Your task to perform on an android device: open chrome privacy settings Image 0: 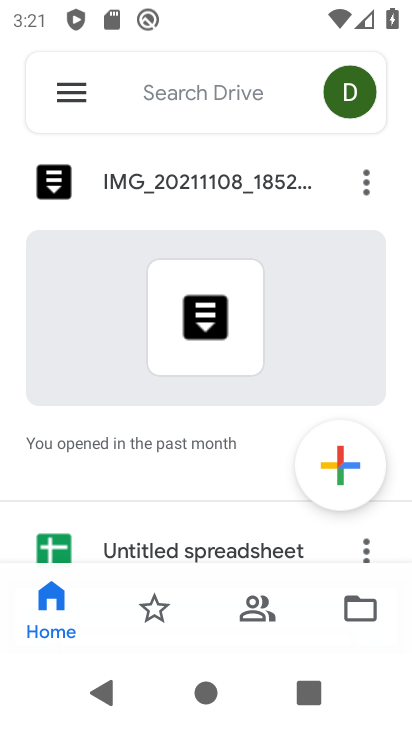
Step 0: press back button
Your task to perform on an android device: open chrome privacy settings Image 1: 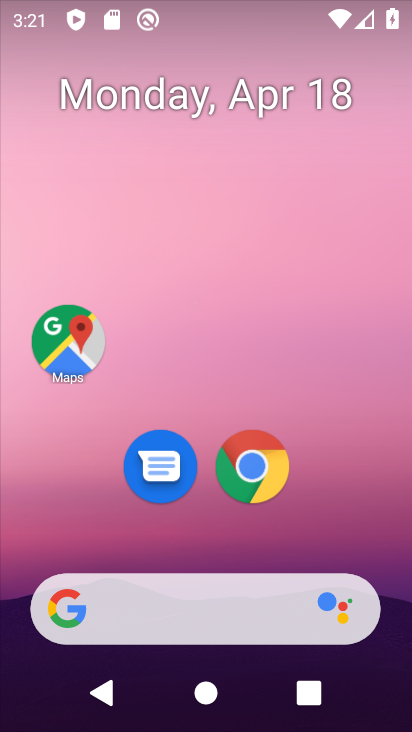
Step 1: click (261, 495)
Your task to perform on an android device: open chrome privacy settings Image 2: 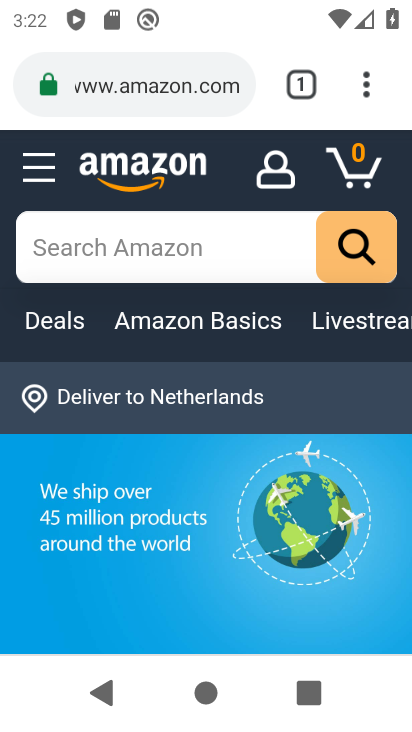
Step 2: click (372, 90)
Your task to perform on an android device: open chrome privacy settings Image 3: 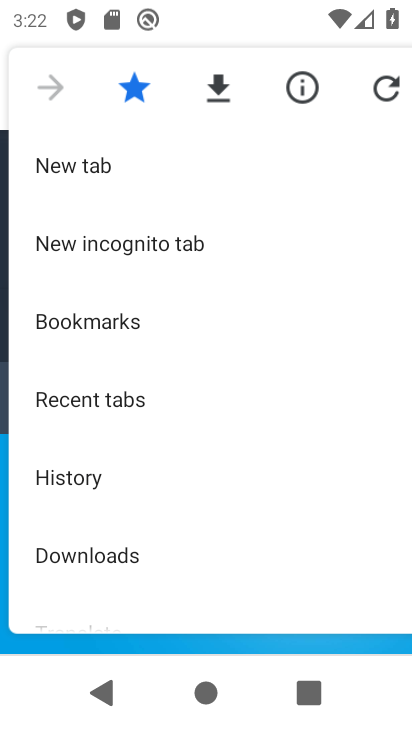
Step 3: drag from (188, 537) to (228, 299)
Your task to perform on an android device: open chrome privacy settings Image 4: 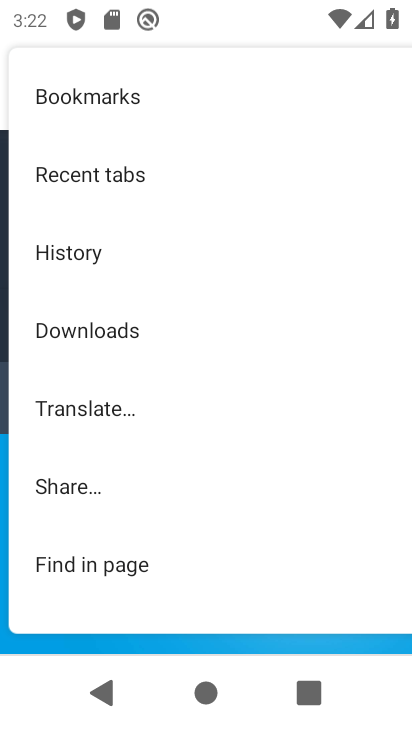
Step 4: drag from (180, 547) to (207, 358)
Your task to perform on an android device: open chrome privacy settings Image 5: 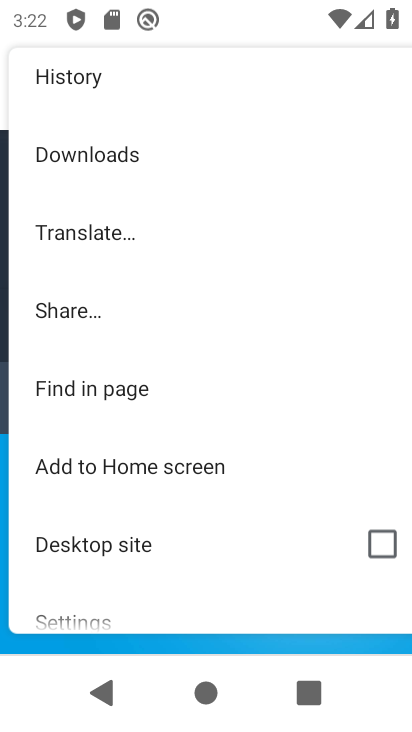
Step 5: click (144, 601)
Your task to perform on an android device: open chrome privacy settings Image 6: 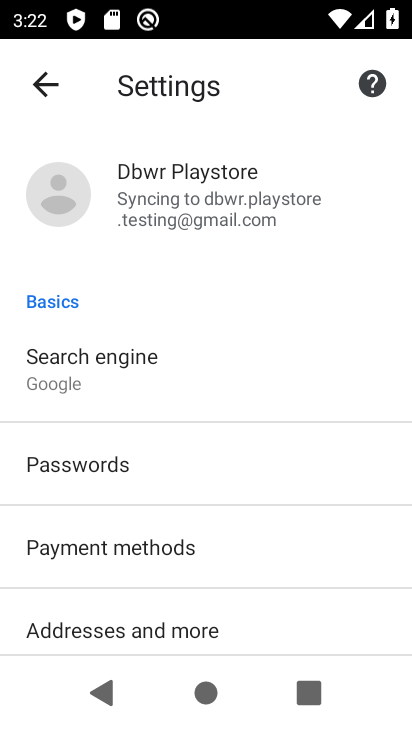
Step 6: drag from (156, 553) to (189, 251)
Your task to perform on an android device: open chrome privacy settings Image 7: 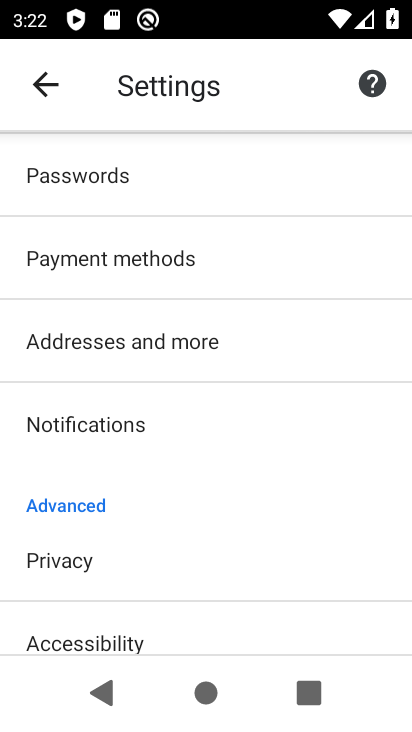
Step 7: click (155, 562)
Your task to perform on an android device: open chrome privacy settings Image 8: 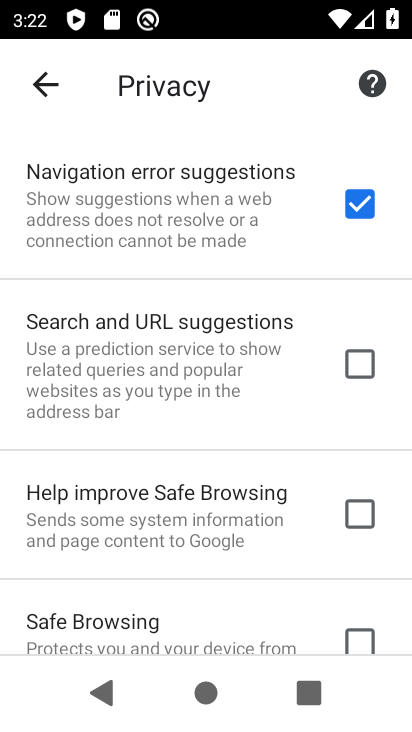
Step 8: click (110, 689)
Your task to perform on an android device: open chrome privacy settings Image 9: 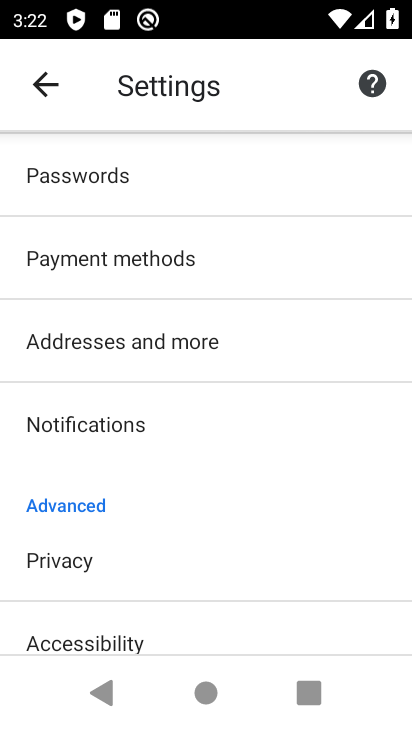
Step 9: task complete